Your task to perform on an android device: Go to notification settings Image 0: 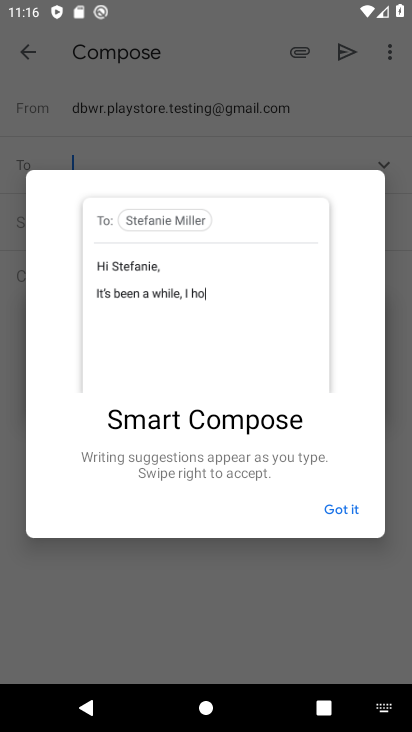
Step 0: press home button
Your task to perform on an android device: Go to notification settings Image 1: 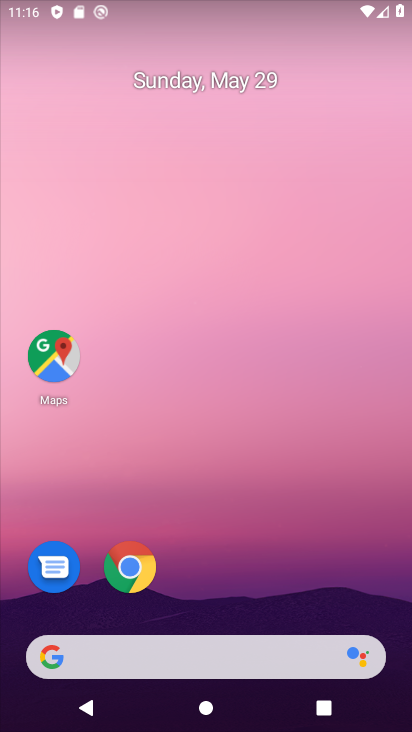
Step 1: drag from (280, 644) to (253, 250)
Your task to perform on an android device: Go to notification settings Image 2: 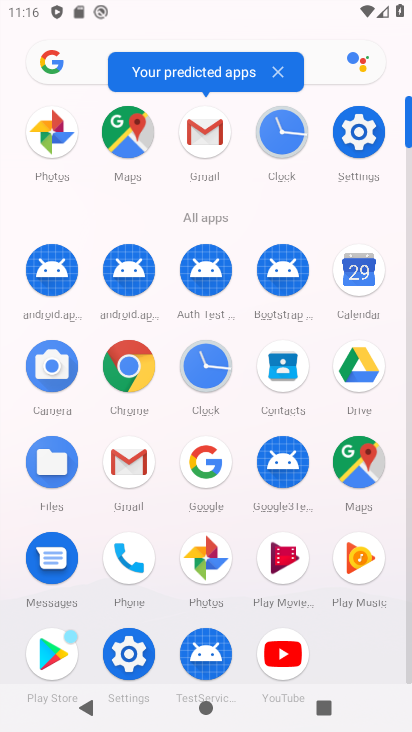
Step 2: click (353, 138)
Your task to perform on an android device: Go to notification settings Image 3: 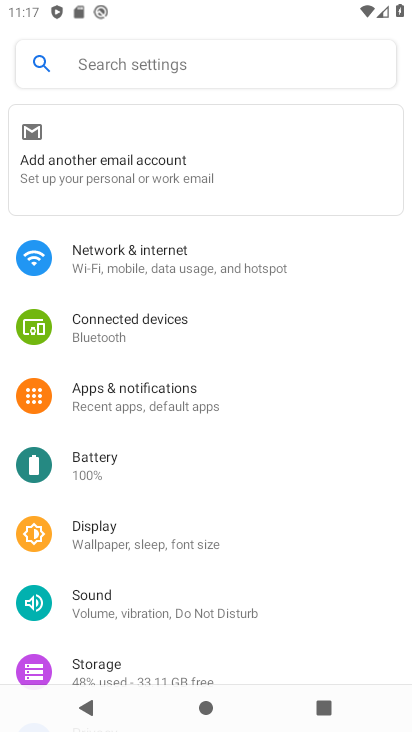
Step 3: click (181, 393)
Your task to perform on an android device: Go to notification settings Image 4: 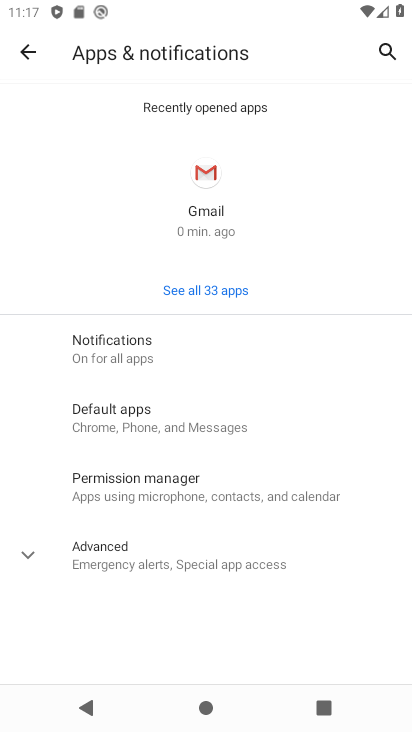
Step 4: click (156, 348)
Your task to perform on an android device: Go to notification settings Image 5: 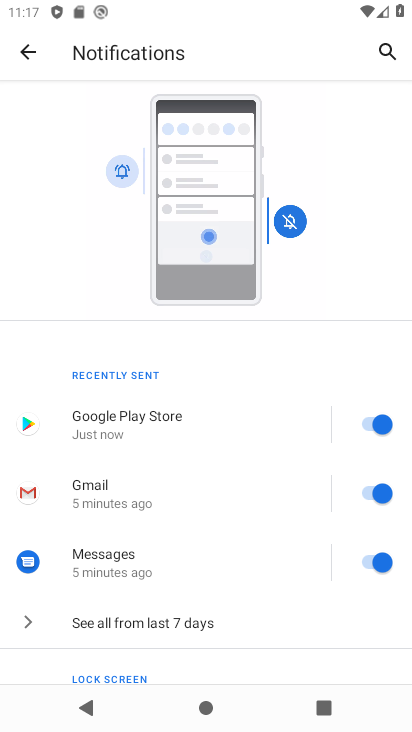
Step 5: task complete